Your task to perform on an android device: choose inbox layout in the gmail app Image 0: 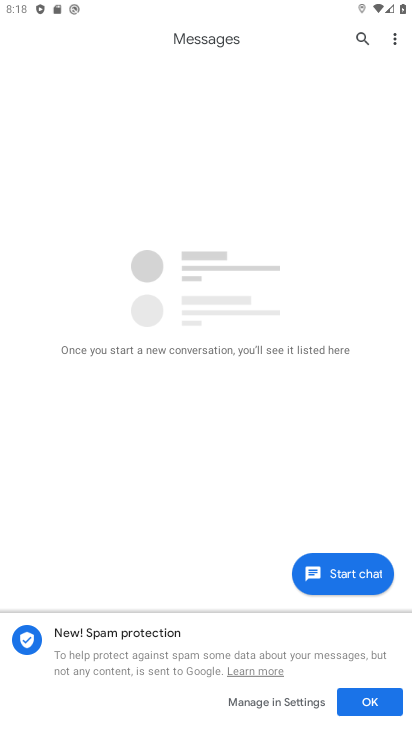
Step 0: drag from (195, 504) to (203, 153)
Your task to perform on an android device: choose inbox layout in the gmail app Image 1: 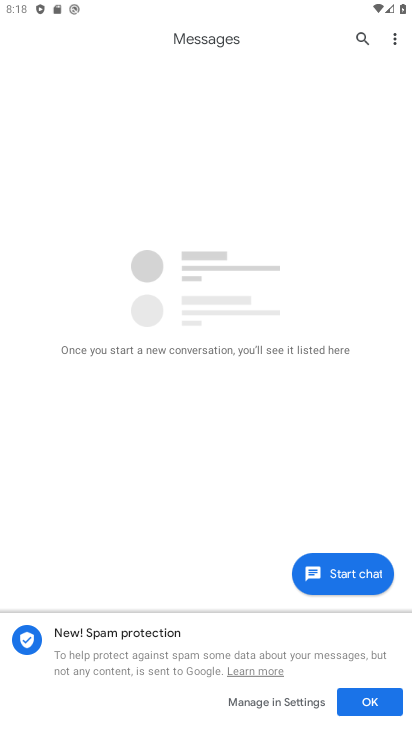
Step 1: press home button
Your task to perform on an android device: choose inbox layout in the gmail app Image 2: 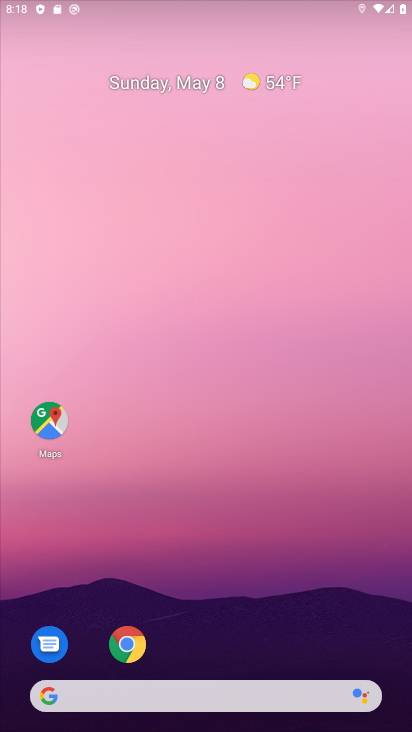
Step 2: drag from (199, 635) to (237, 226)
Your task to perform on an android device: choose inbox layout in the gmail app Image 3: 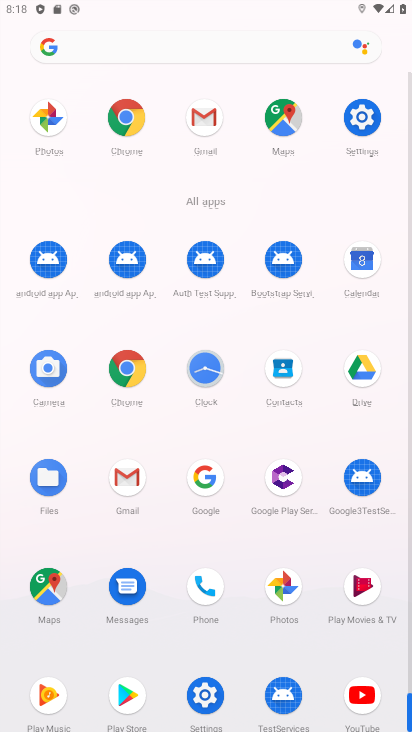
Step 3: click (124, 476)
Your task to perform on an android device: choose inbox layout in the gmail app Image 4: 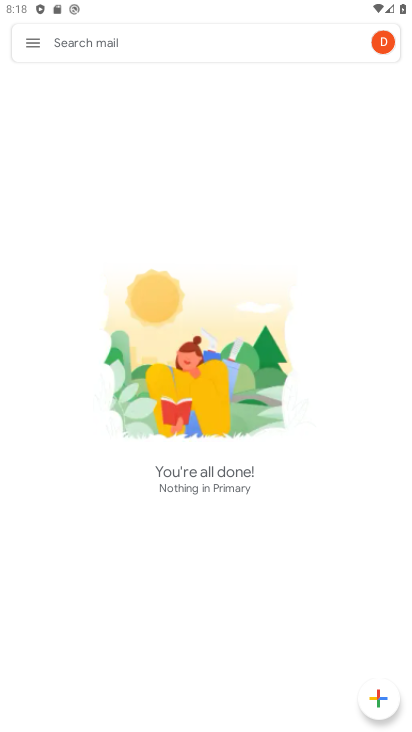
Step 4: drag from (206, 552) to (233, 89)
Your task to perform on an android device: choose inbox layout in the gmail app Image 5: 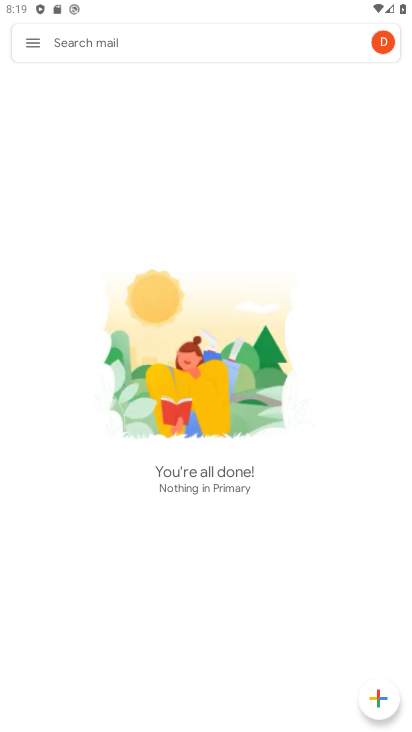
Step 5: drag from (201, 562) to (295, 250)
Your task to perform on an android device: choose inbox layout in the gmail app Image 6: 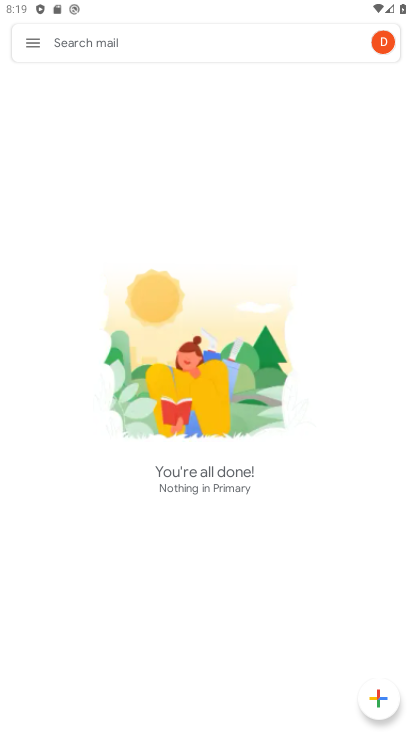
Step 6: click (23, 48)
Your task to perform on an android device: choose inbox layout in the gmail app Image 7: 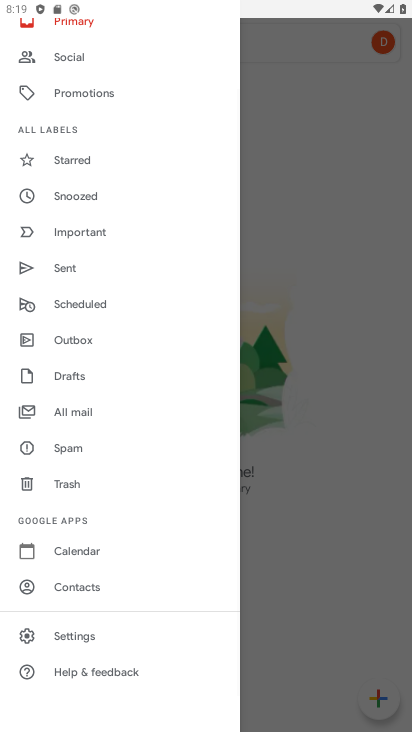
Step 7: drag from (120, 576) to (151, 58)
Your task to perform on an android device: choose inbox layout in the gmail app Image 8: 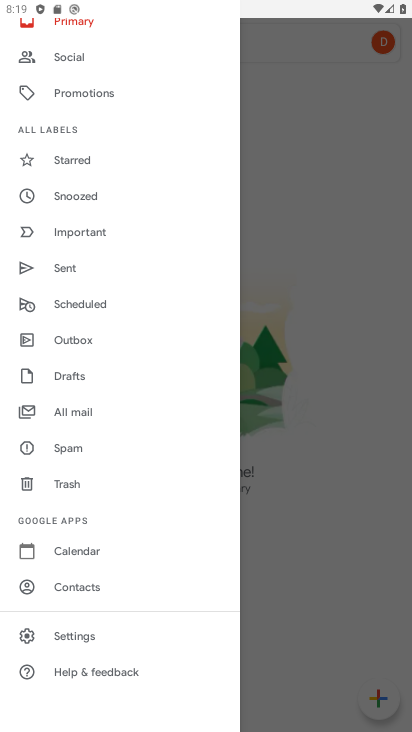
Step 8: click (84, 644)
Your task to perform on an android device: choose inbox layout in the gmail app Image 9: 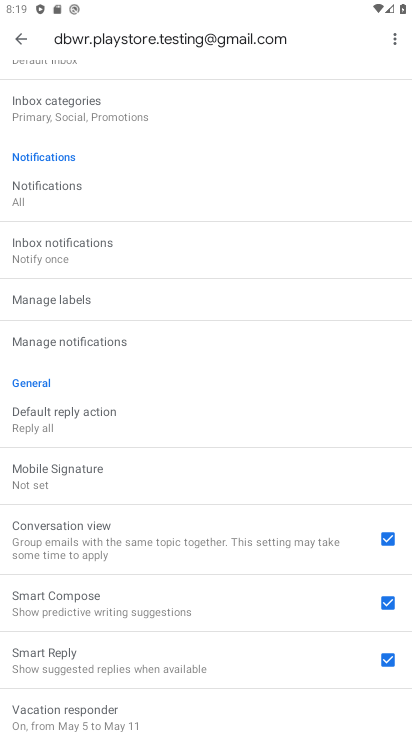
Step 9: drag from (127, 628) to (193, 295)
Your task to perform on an android device: choose inbox layout in the gmail app Image 10: 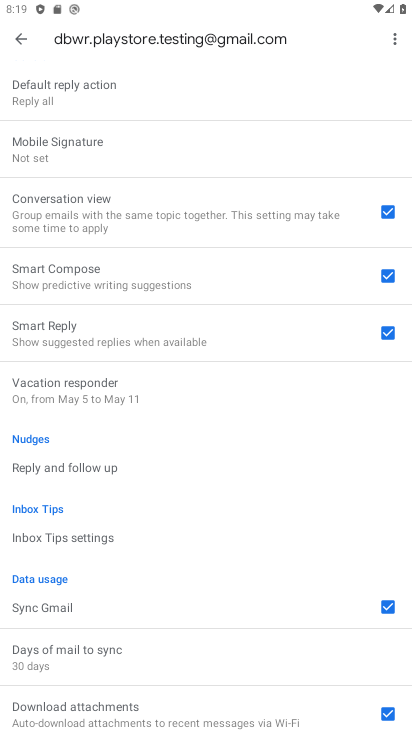
Step 10: drag from (211, 227) to (298, 699)
Your task to perform on an android device: choose inbox layout in the gmail app Image 11: 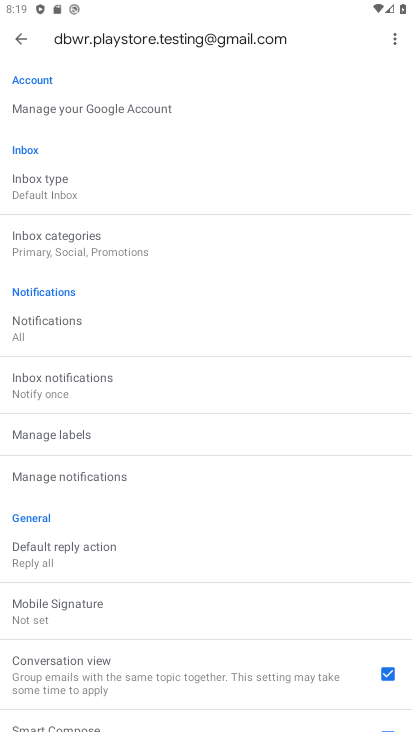
Step 11: press back button
Your task to perform on an android device: choose inbox layout in the gmail app Image 12: 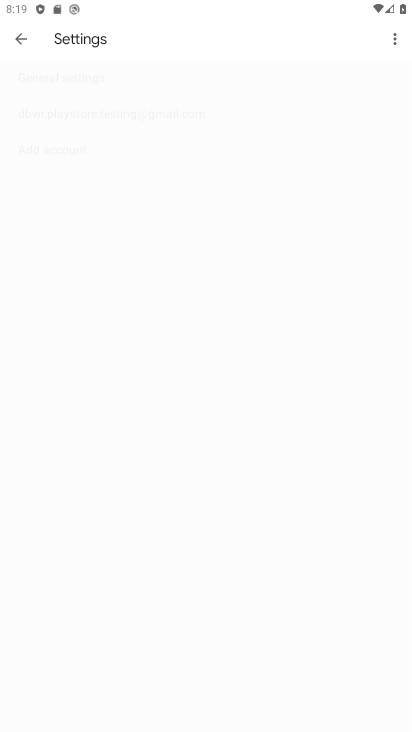
Step 12: click (298, 699)
Your task to perform on an android device: choose inbox layout in the gmail app Image 13: 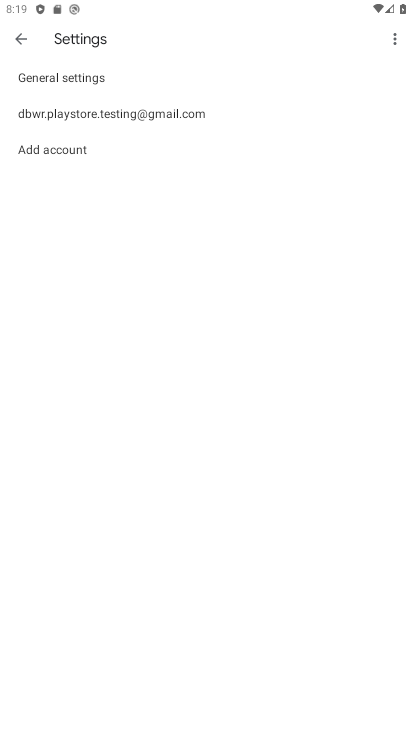
Step 13: press back button
Your task to perform on an android device: choose inbox layout in the gmail app Image 14: 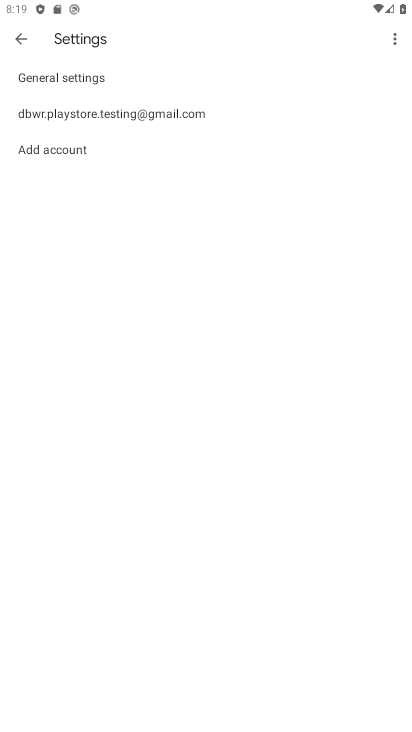
Step 14: click (355, 269)
Your task to perform on an android device: choose inbox layout in the gmail app Image 15: 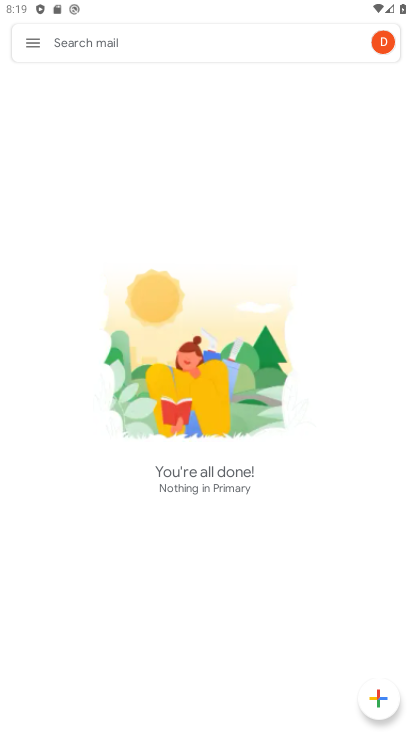
Step 15: click (22, 45)
Your task to perform on an android device: choose inbox layout in the gmail app Image 16: 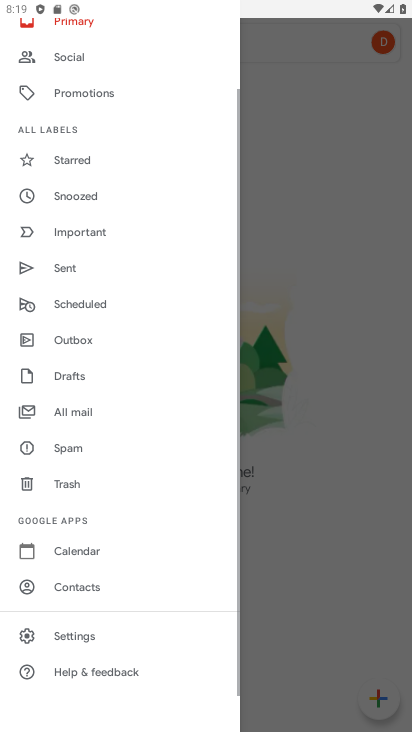
Step 16: drag from (84, 107) to (133, 619)
Your task to perform on an android device: choose inbox layout in the gmail app Image 17: 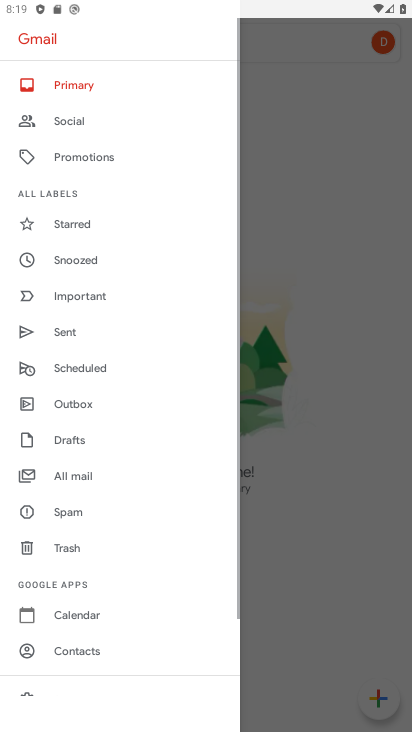
Step 17: click (69, 77)
Your task to perform on an android device: choose inbox layout in the gmail app Image 18: 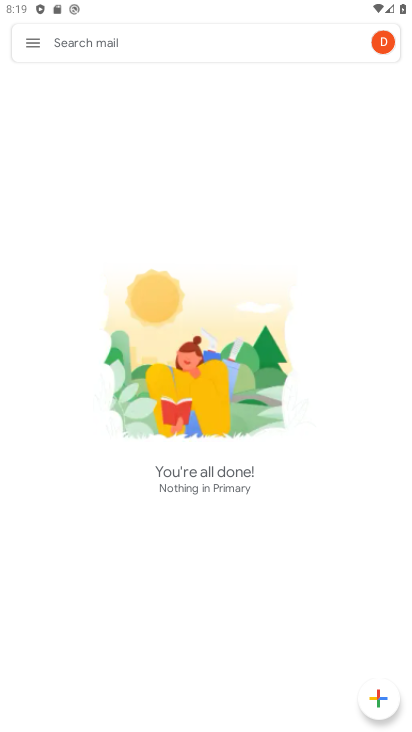
Step 18: task complete